Your task to perform on an android device: visit the assistant section in the google photos Image 0: 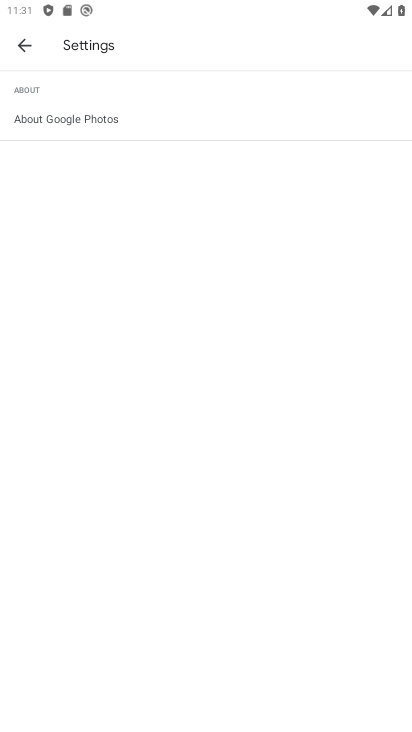
Step 0: press home button
Your task to perform on an android device: visit the assistant section in the google photos Image 1: 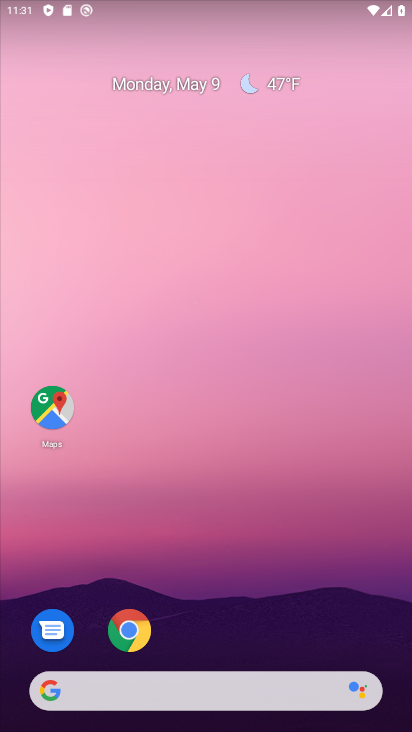
Step 1: drag from (116, 693) to (275, 181)
Your task to perform on an android device: visit the assistant section in the google photos Image 2: 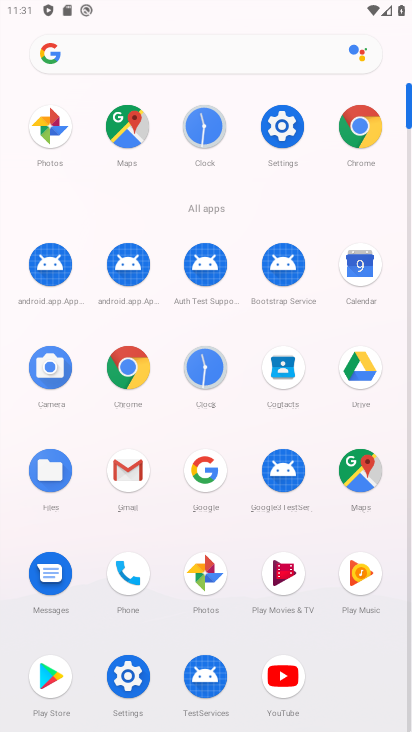
Step 2: click (203, 578)
Your task to perform on an android device: visit the assistant section in the google photos Image 3: 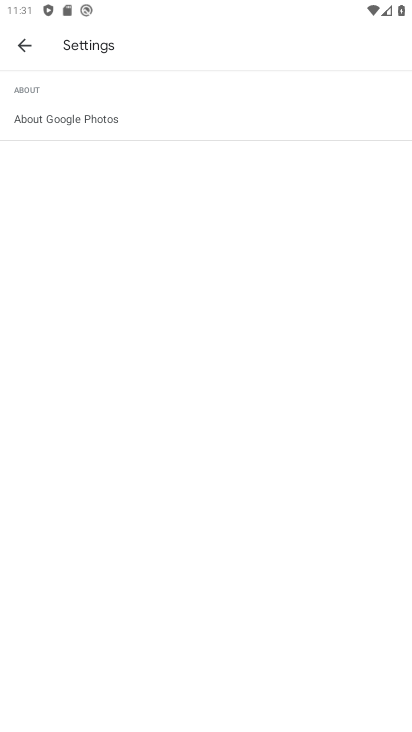
Step 3: click (27, 44)
Your task to perform on an android device: visit the assistant section in the google photos Image 4: 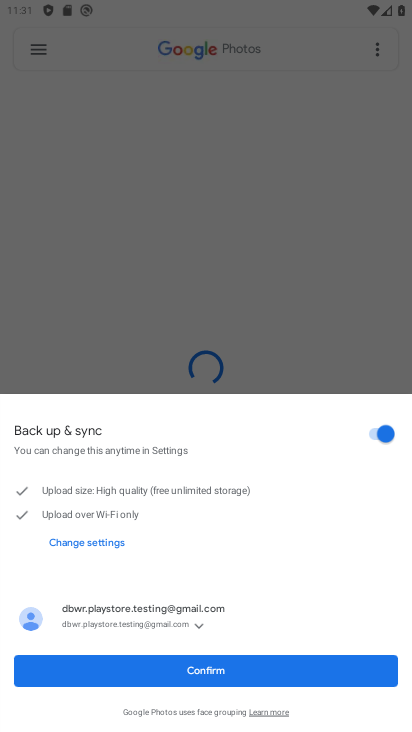
Step 4: click (223, 669)
Your task to perform on an android device: visit the assistant section in the google photos Image 5: 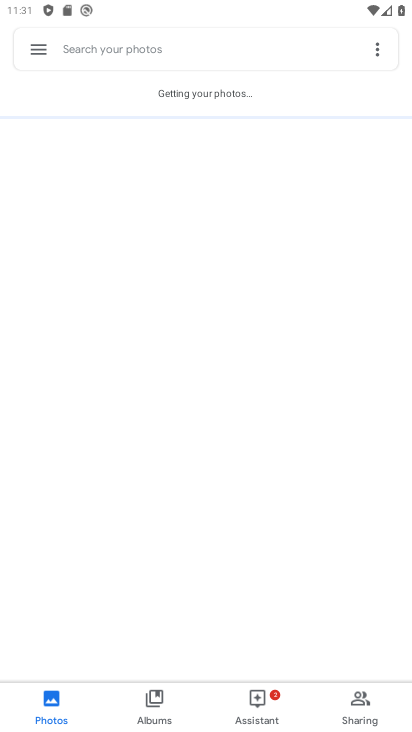
Step 5: click (262, 705)
Your task to perform on an android device: visit the assistant section in the google photos Image 6: 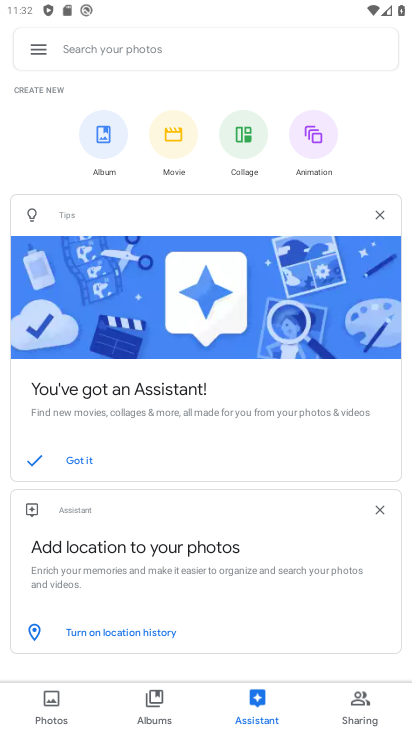
Step 6: task complete